Your task to perform on an android device: Open the phone app and click the voicemail tab. Image 0: 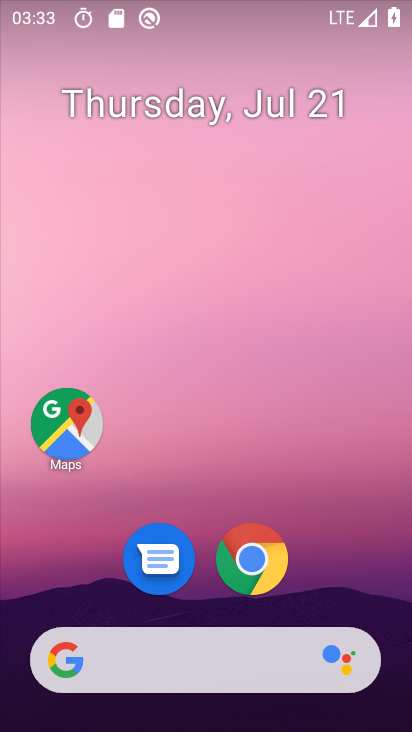
Step 0: drag from (351, 558) to (361, 37)
Your task to perform on an android device: Open the phone app and click the voicemail tab. Image 1: 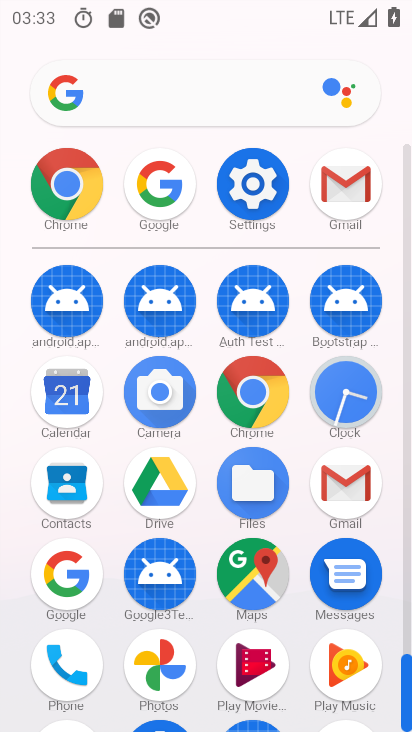
Step 1: drag from (398, 511) to (398, 340)
Your task to perform on an android device: Open the phone app and click the voicemail tab. Image 2: 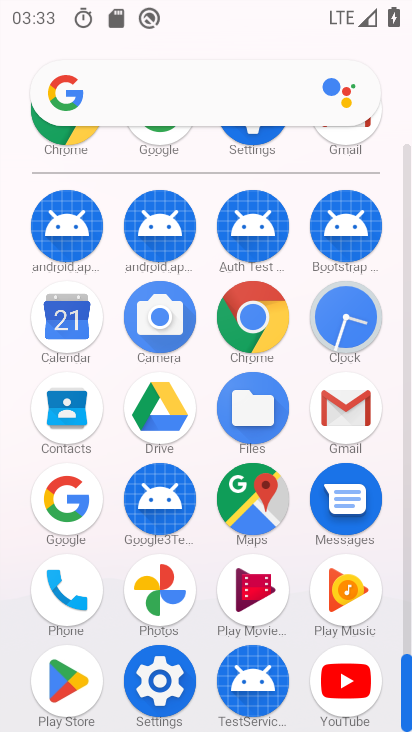
Step 2: click (90, 588)
Your task to perform on an android device: Open the phone app and click the voicemail tab. Image 3: 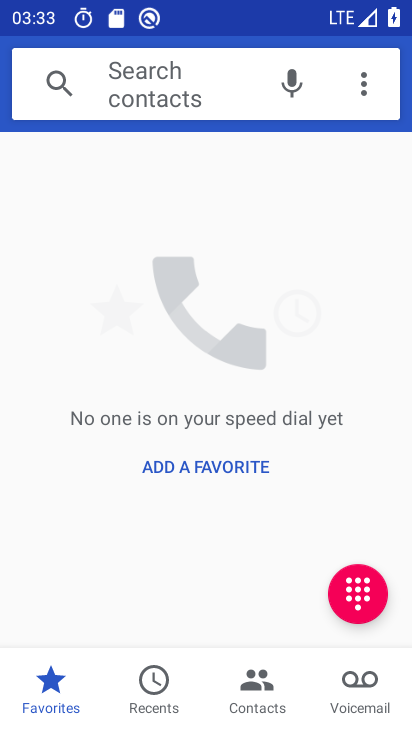
Step 3: click (358, 690)
Your task to perform on an android device: Open the phone app and click the voicemail tab. Image 4: 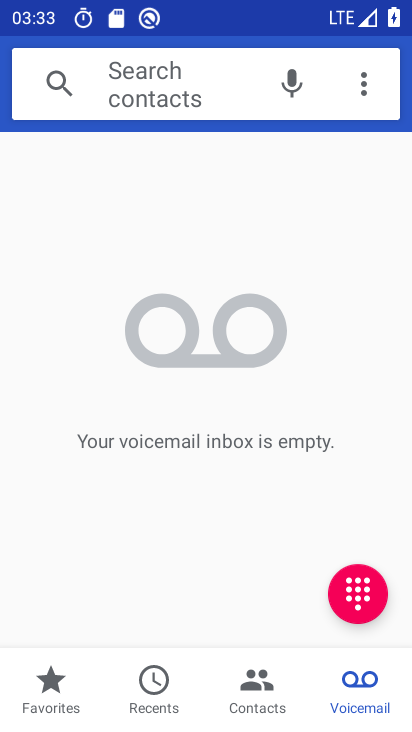
Step 4: task complete